Your task to perform on an android device: Go to settings Image 0: 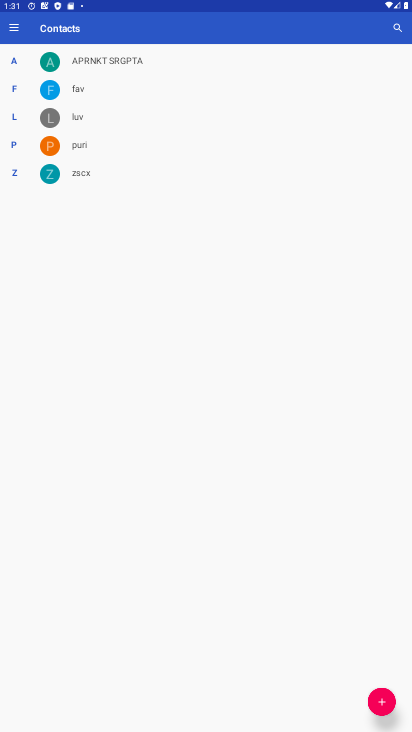
Step 0: press home button
Your task to perform on an android device: Go to settings Image 1: 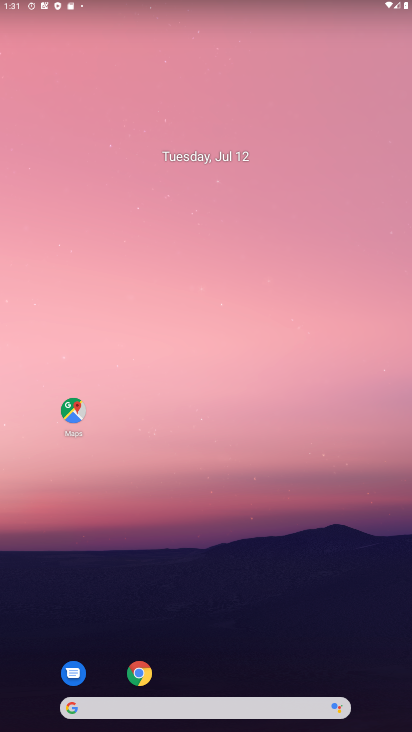
Step 1: drag from (367, 606) to (402, 50)
Your task to perform on an android device: Go to settings Image 2: 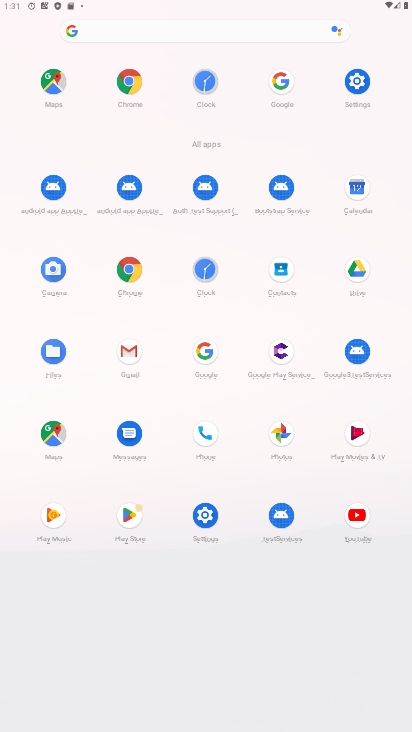
Step 2: click (350, 87)
Your task to perform on an android device: Go to settings Image 3: 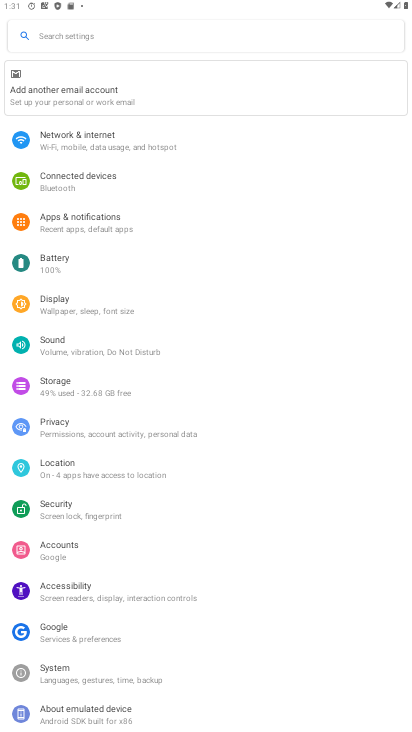
Step 3: task complete